Your task to perform on an android device: Open a new private tab in Chrome Image 0: 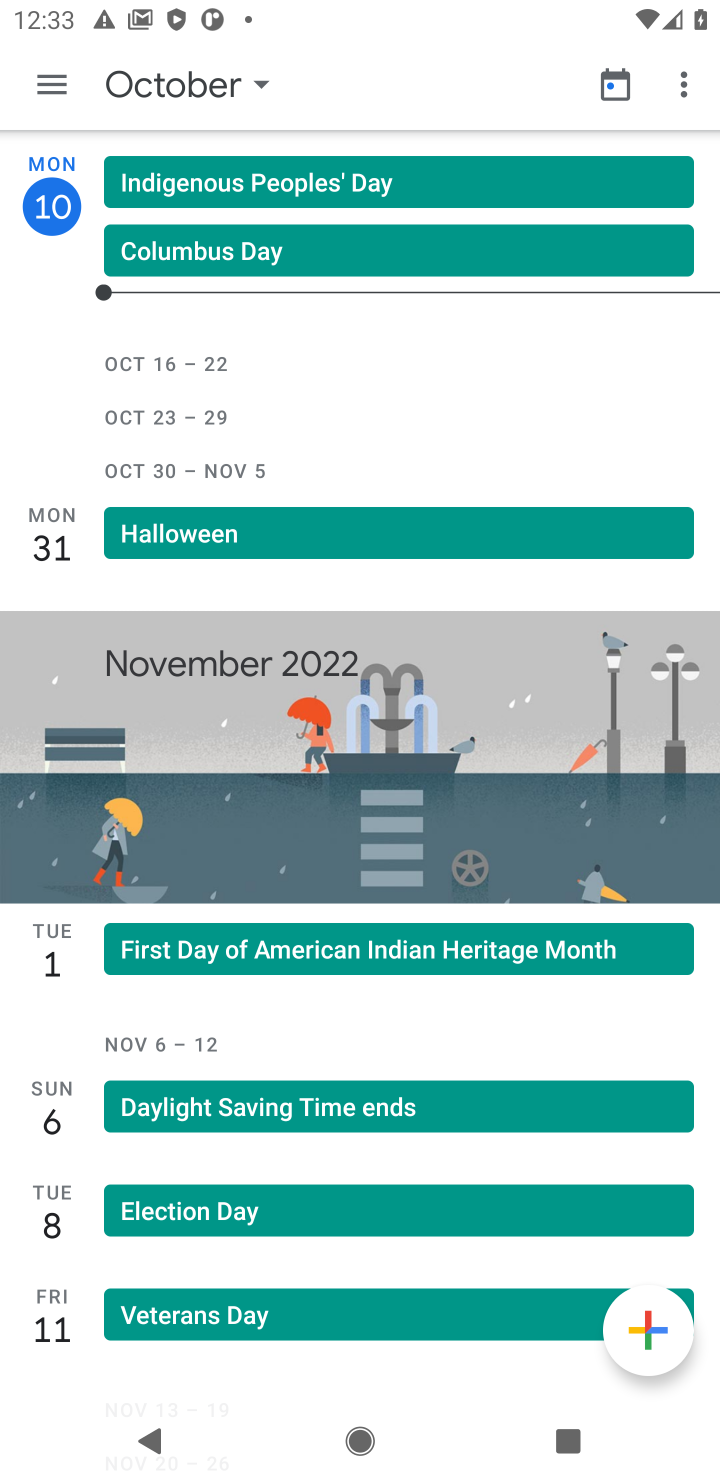
Step 0: press home button
Your task to perform on an android device: Open a new private tab in Chrome Image 1: 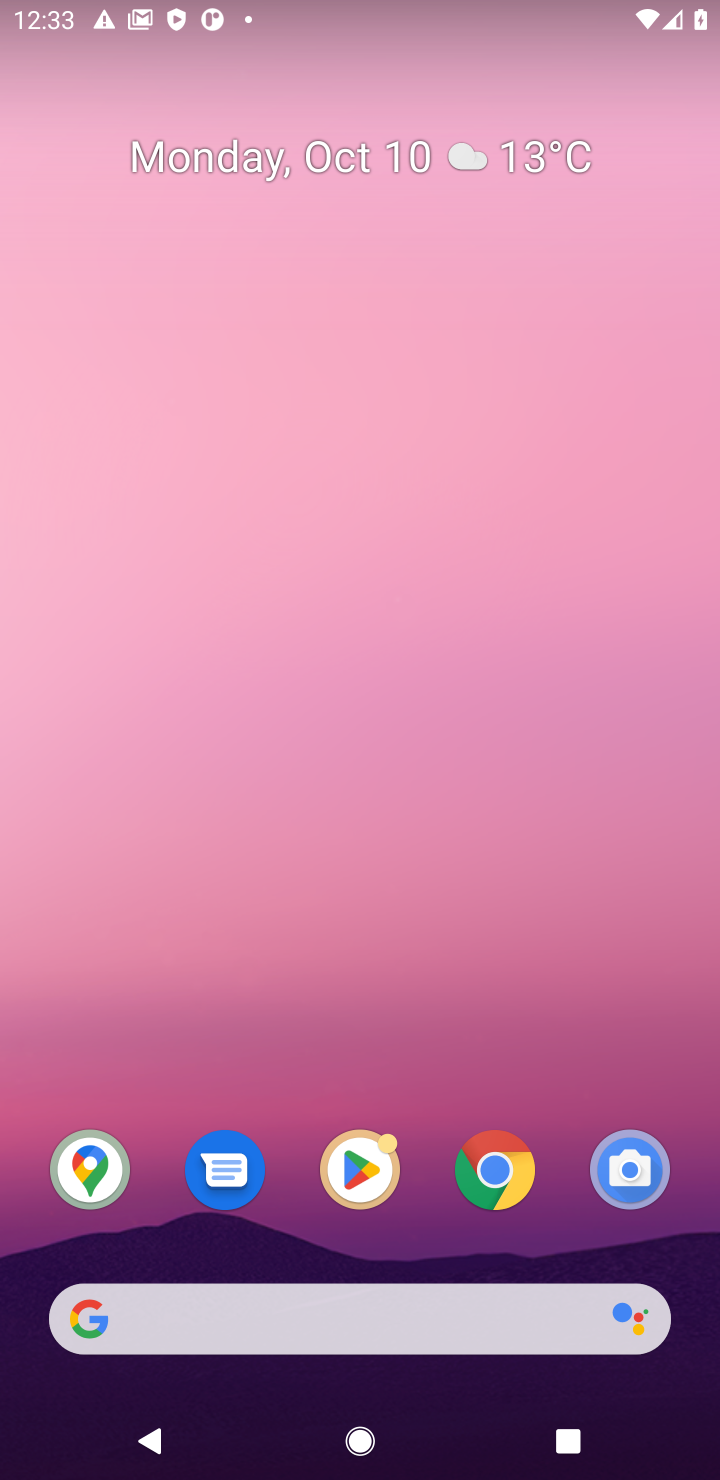
Step 1: click (495, 1176)
Your task to perform on an android device: Open a new private tab in Chrome Image 2: 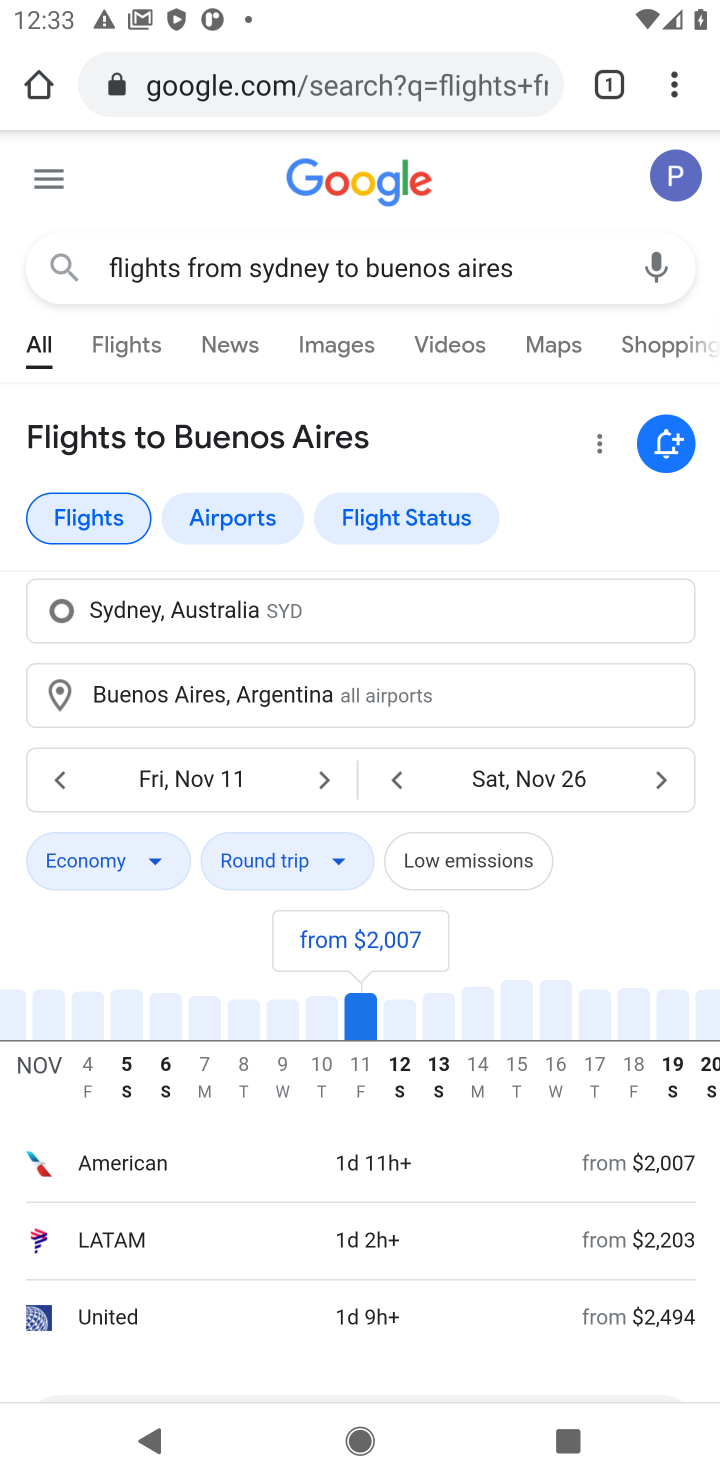
Step 2: click (682, 85)
Your task to perform on an android device: Open a new private tab in Chrome Image 3: 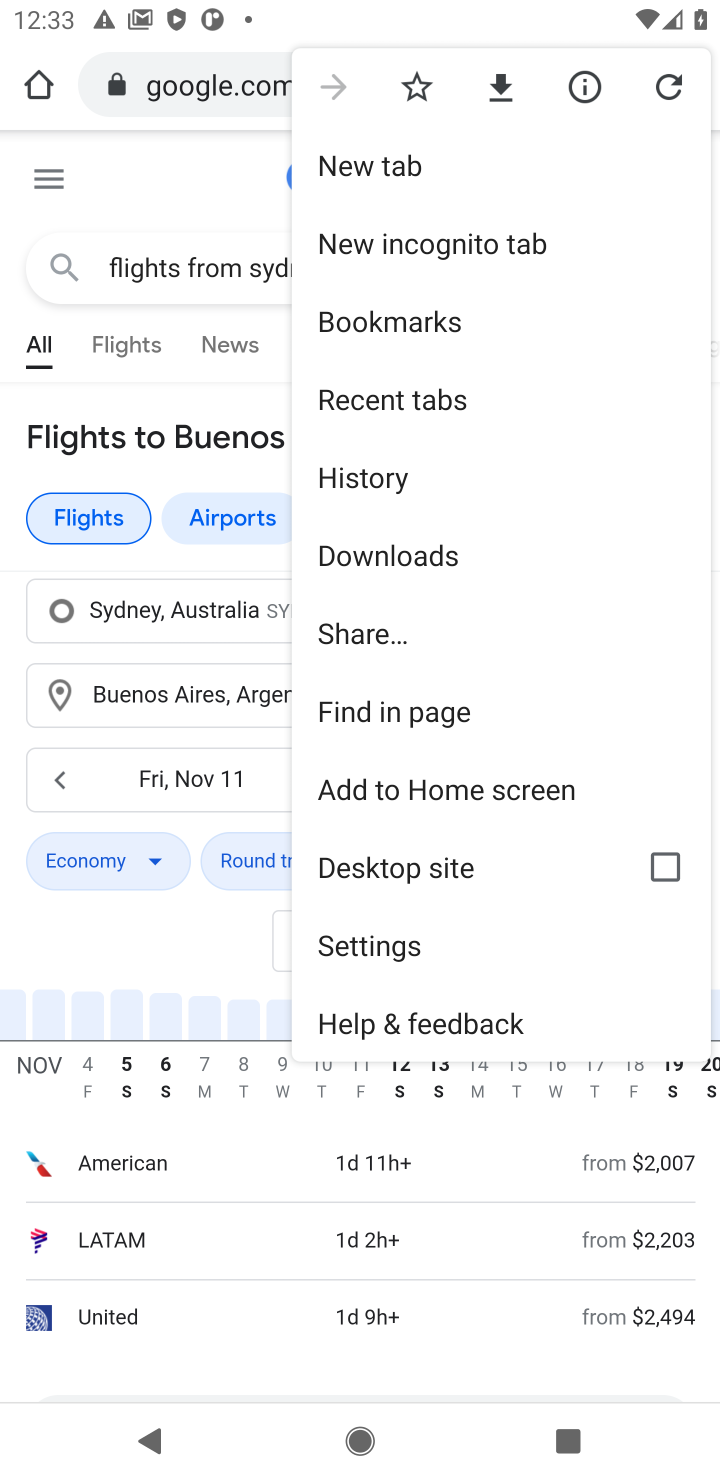
Step 3: click (524, 234)
Your task to perform on an android device: Open a new private tab in Chrome Image 4: 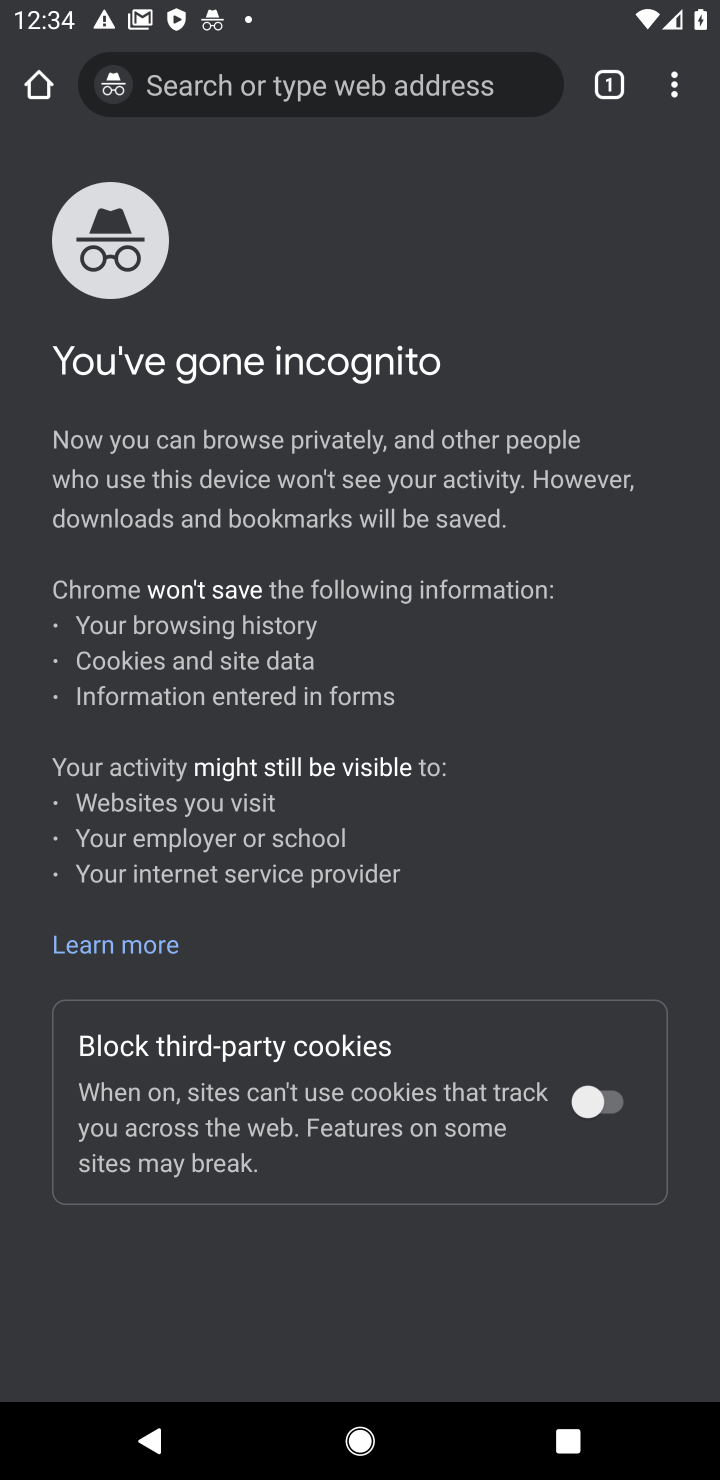
Step 4: task complete